Your task to perform on an android device: Go to internet settings Image 0: 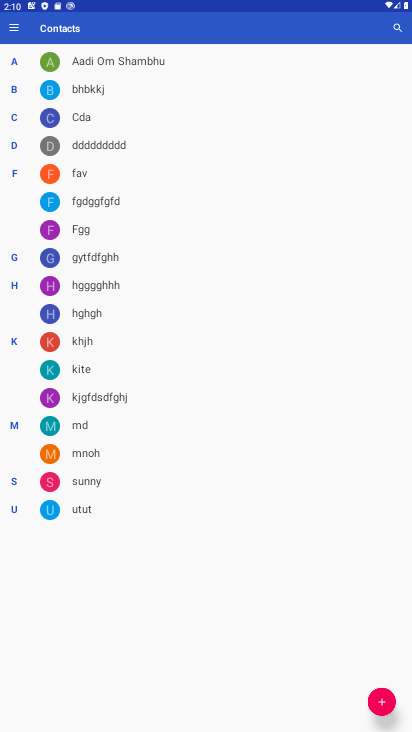
Step 0: drag from (165, 662) to (201, 271)
Your task to perform on an android device: Go to internet settings Image 1: 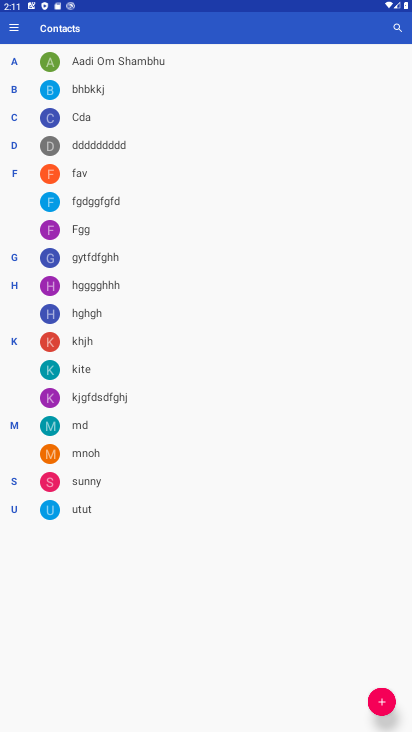
Step 1: press home button
Your task to perform on an android device: Go to internet settings Image 2: 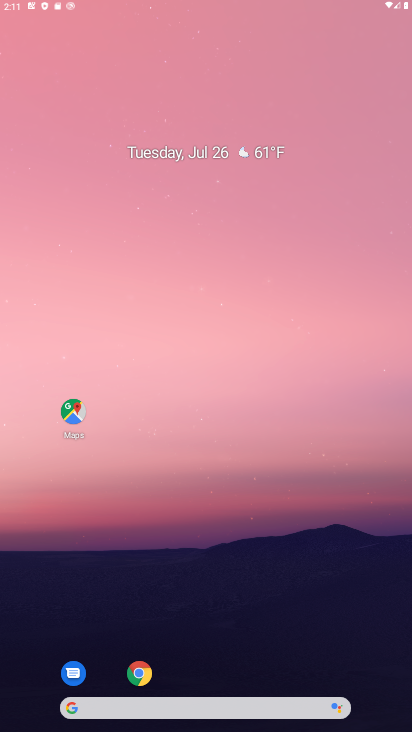
Step 2: drag from (58, 524) to (158, 111)
Your task to perform on an android device: Go to internet settings Image 3: 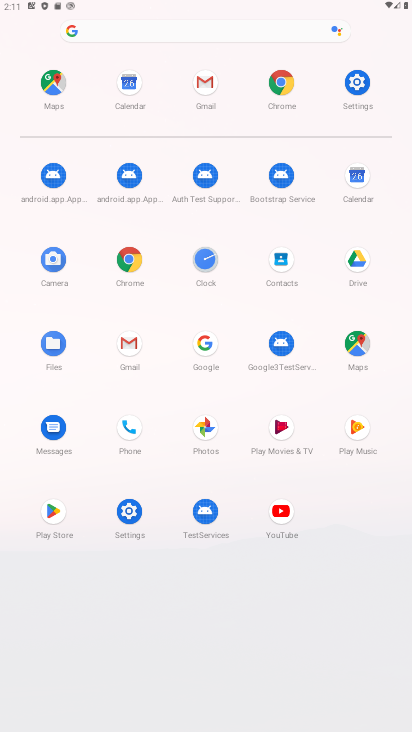
Step 3: click (356, 80)
Your task to perform on an android device: Go to internet settings Image 4: 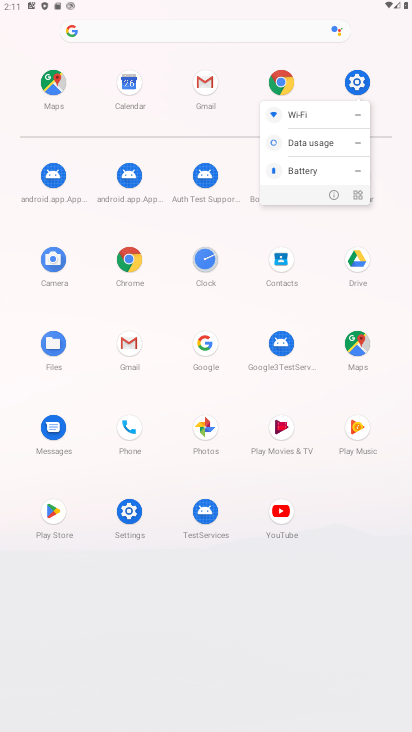
Step 4: click (331, 191)
Your task to perform on an android device: Go to internet settings Image 5: 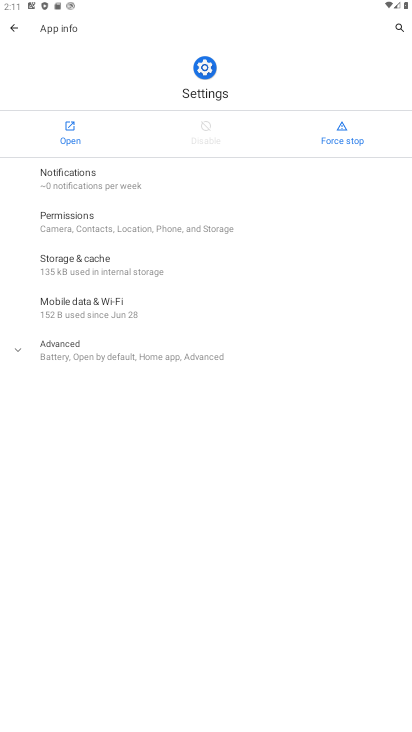
Step 5: click (77, 136)
Your task to perform on an android device: Go to internet settings Image 6: 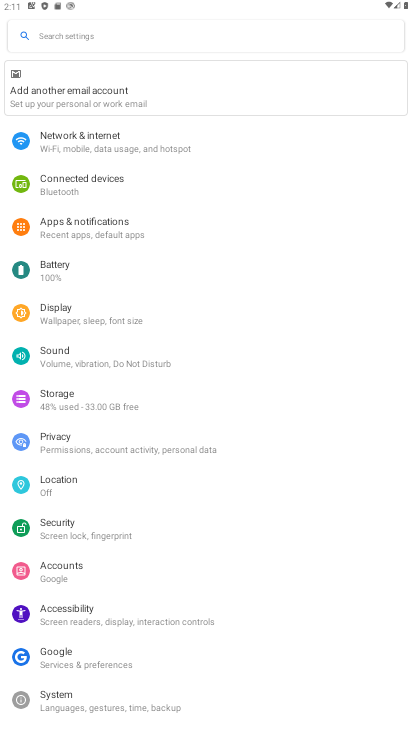
Step 6: click (89, 158)
Your task to perform on an android device: Go to internet settings Image 7: 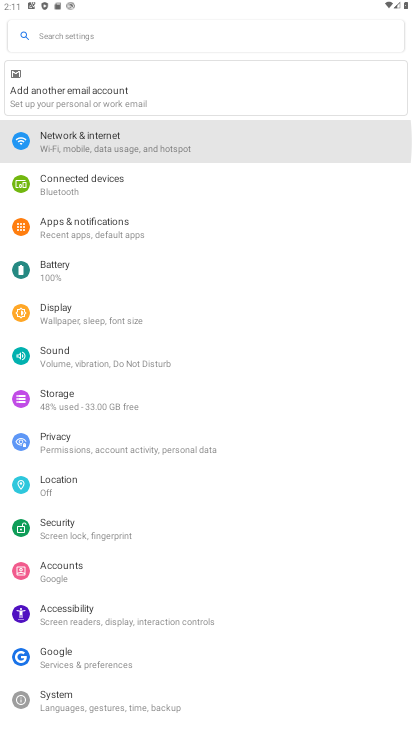
Step 7: click (87, 152)
Your task to perform on an android device: Go to internet settings Image 8: 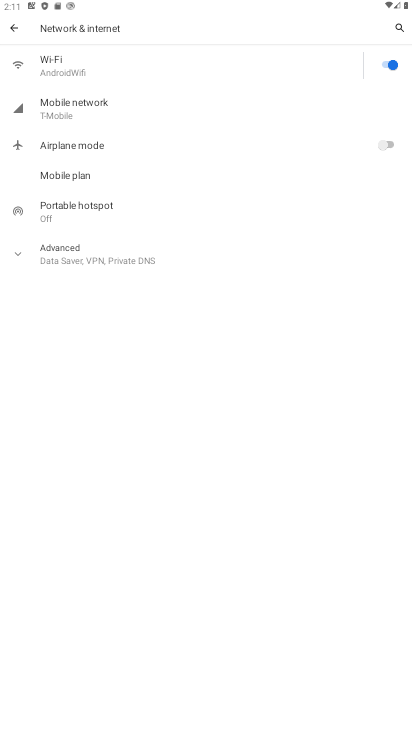
Step 8: task complete